Your task to perform on an android device: check the backup settings in the google photos Image 0: 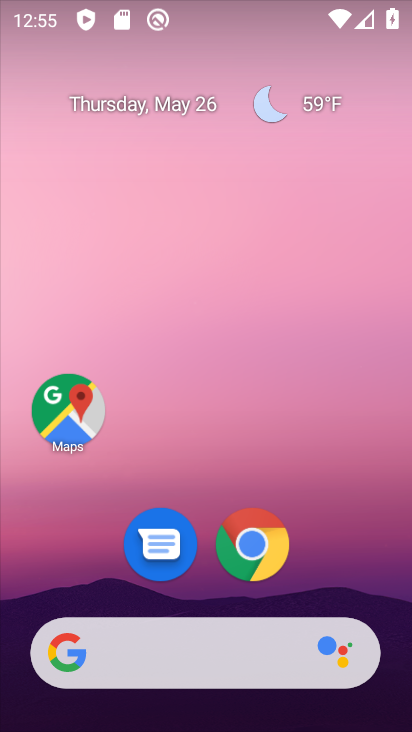
Step 0: drag from (203, 524) to (316, 18)
Your task to perform on an android device: check the backup settings in the google photos Image 1: 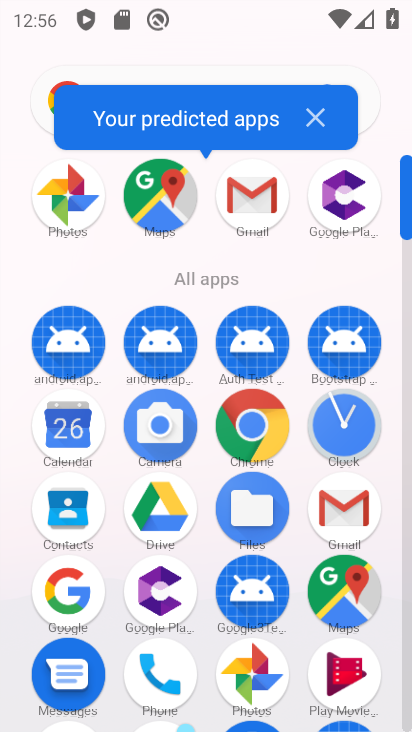
Step 1: click (38, 221)
Your task to perform on an android device: check the backup settings in the google photos Image 2: 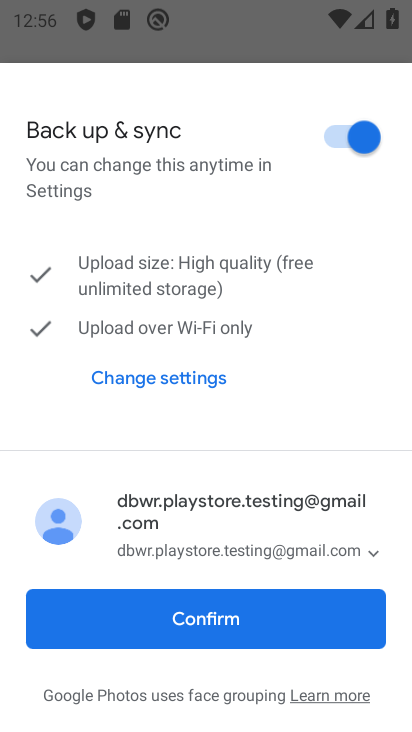
Step 2: click (157, 599)
Your task to perform on an android device: check the backup settings in the google photos Image 3: 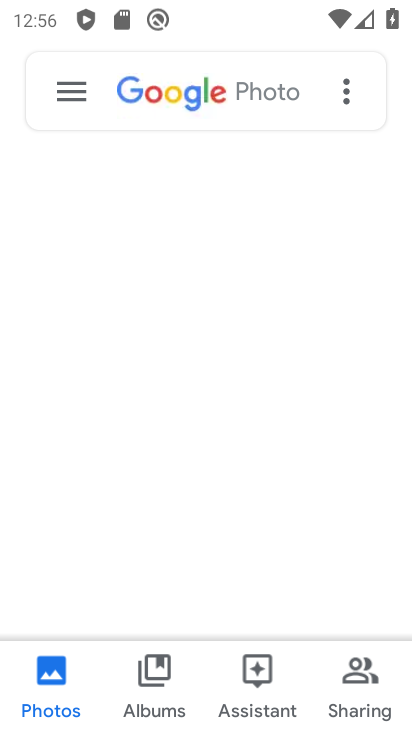
Step 3: click (239, 627)
Your task to perform on an android device: check the backup settings in the google photos Image 4: 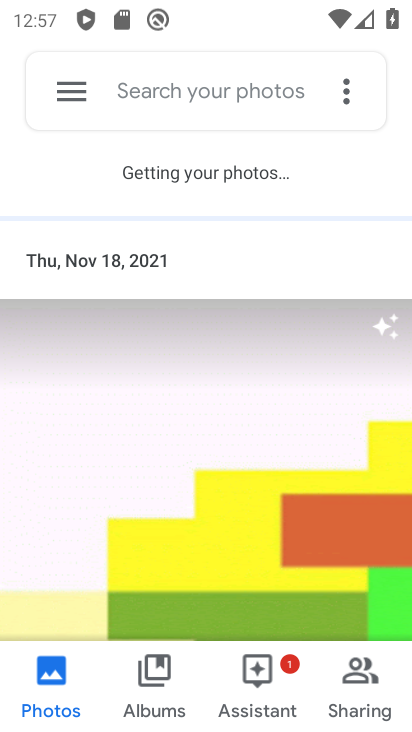
Step 4: click (60, 91)
Your task to perform on an android device: check the backup settings in the google photos Image 5: 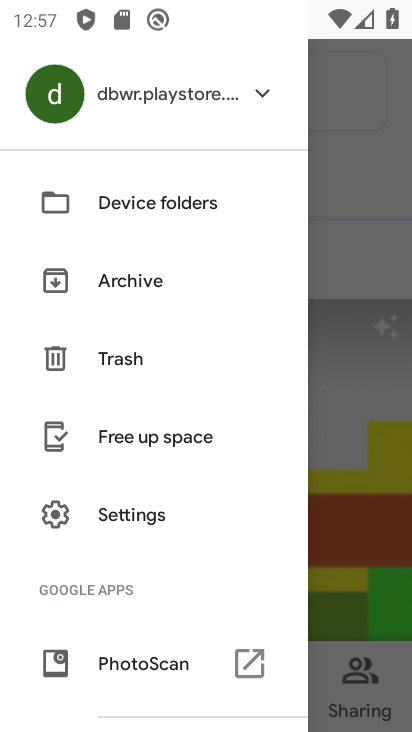
Step 5: drag from (155, 477) to (146, 86)
Your task to perform on an android device: check the backup settings in the google photos Image 6: 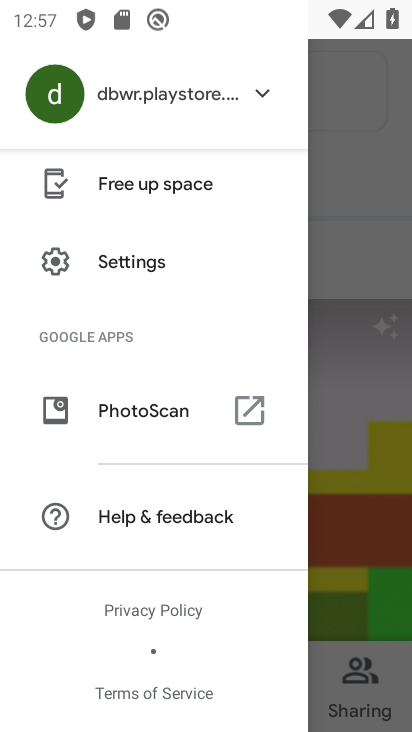
Step 6: click (116, 262)
Your task to perform on an android device: check the backup settings in the google photos Image 7: 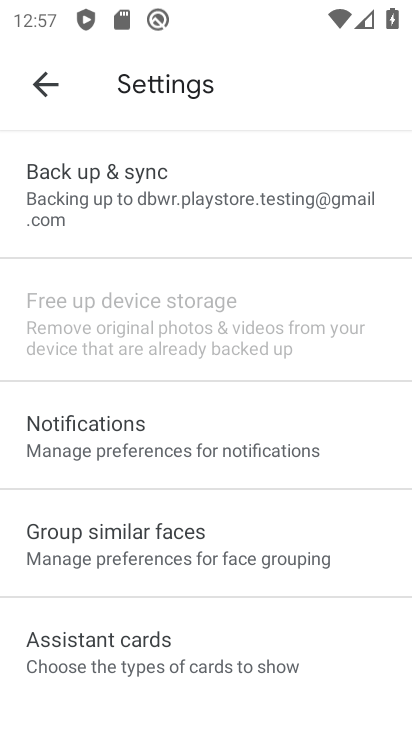
Step 7: click (130, 170)
Your task to perform on an android device: check the backup settings in the google photos Image 8: 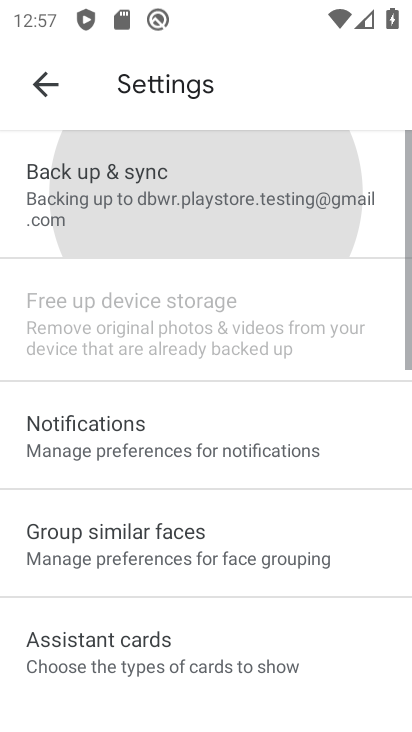
Step 8: click (130, 170)
Your task to perform on an android device: check the backup settings in the google photos Image 9: 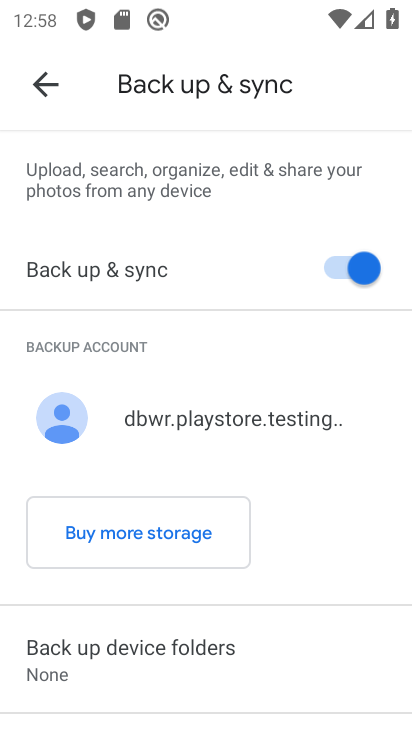
Step 9: drag from (183, 688) to (219, 176)
Your task to perform on an android device: check the backup settings in the google photos Image 10: 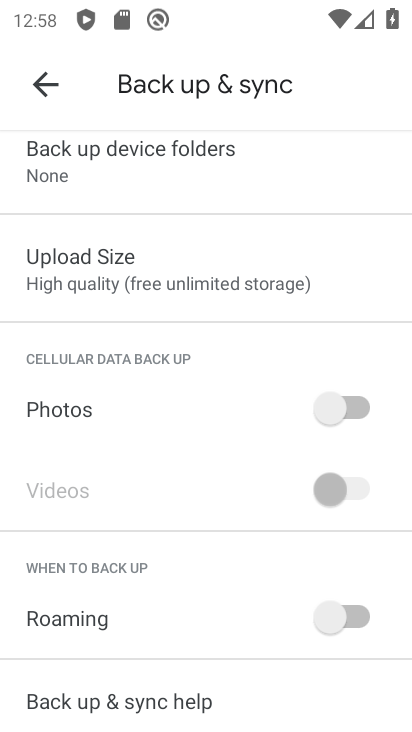
Step 10: click (135, 276)
Your task to perform on an android device: check the backup settings in the google photos Image 11: 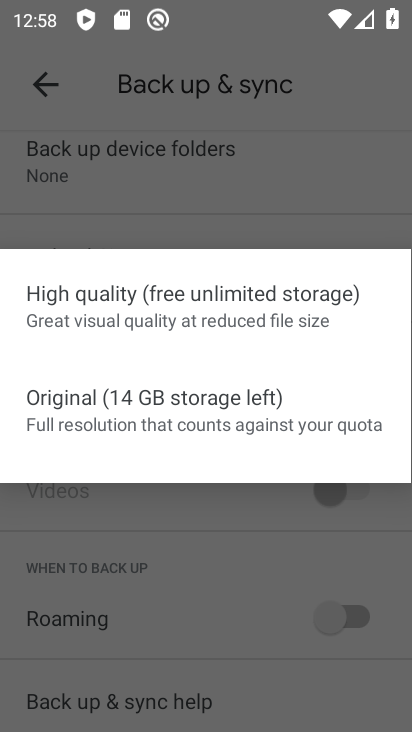
Step 11: click (207, 383)
Your task to perform on an android device: check the backup settings in the google photos Image 12: 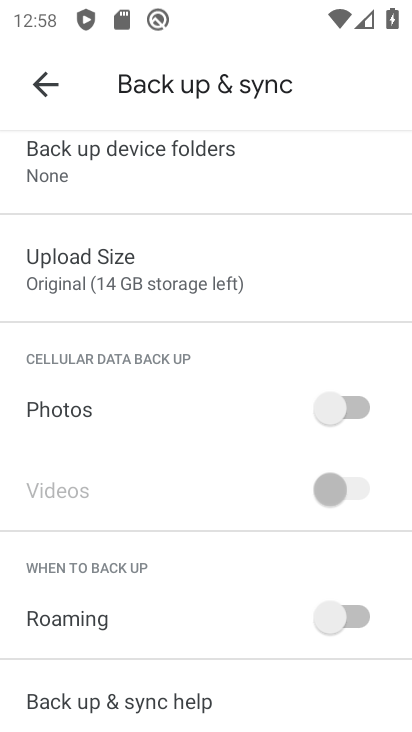
Step 12: task complete